Your task to perform on an android device: uninstall "Speedtest by Ookla" Image 0: 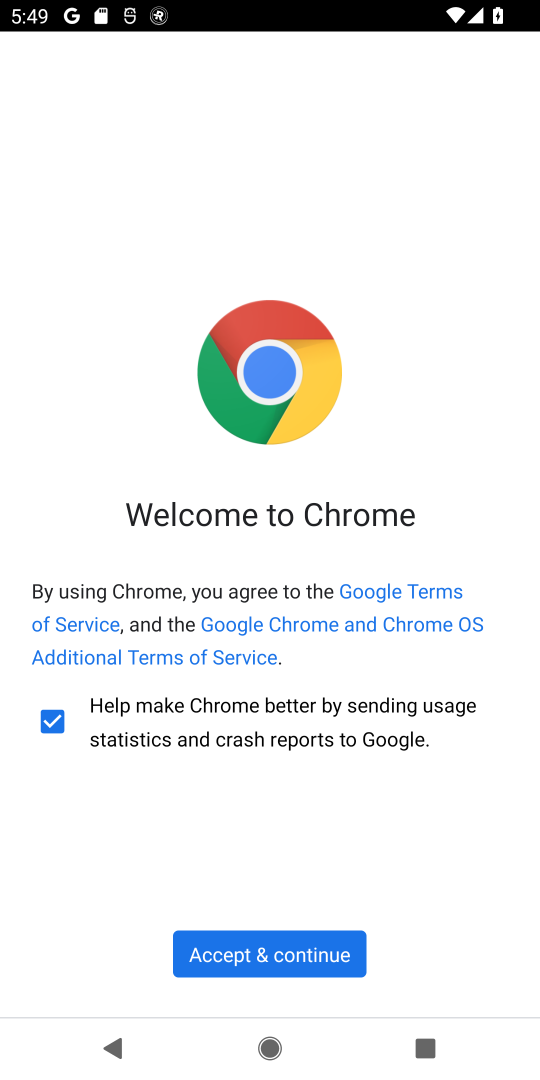
Step 0: click (277, 957)
Your task to perform on an android device: uninstall "Speedtest by Ookla" Image 1: 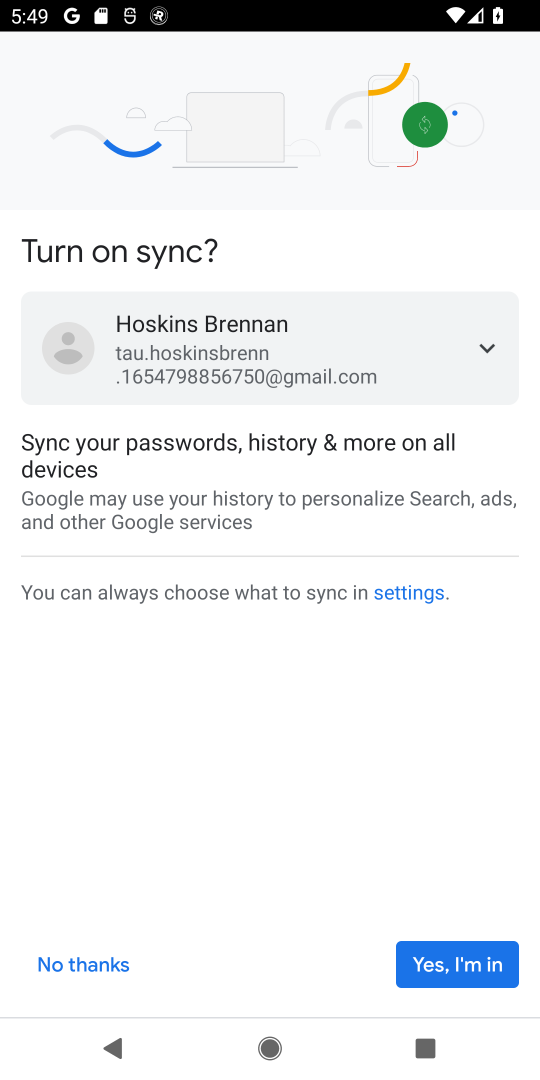
Step 1: press back button
Your task to perform on an android device: uninstall "Speedtest by Ookla" Image 2: 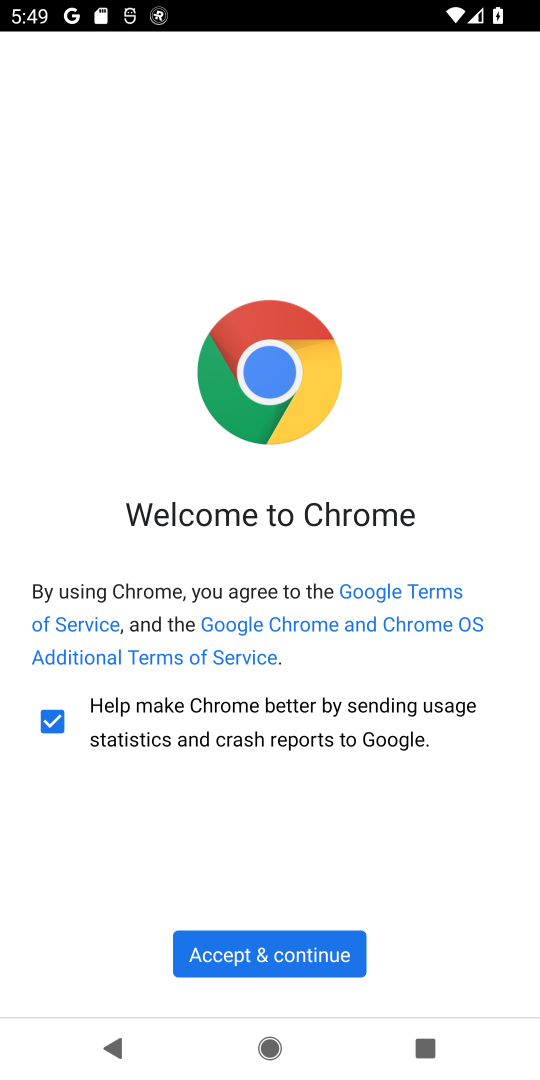
Step 2: press home button
Your task to perform on an android device: uninstall "Speedtest by Ookla" Image 3: 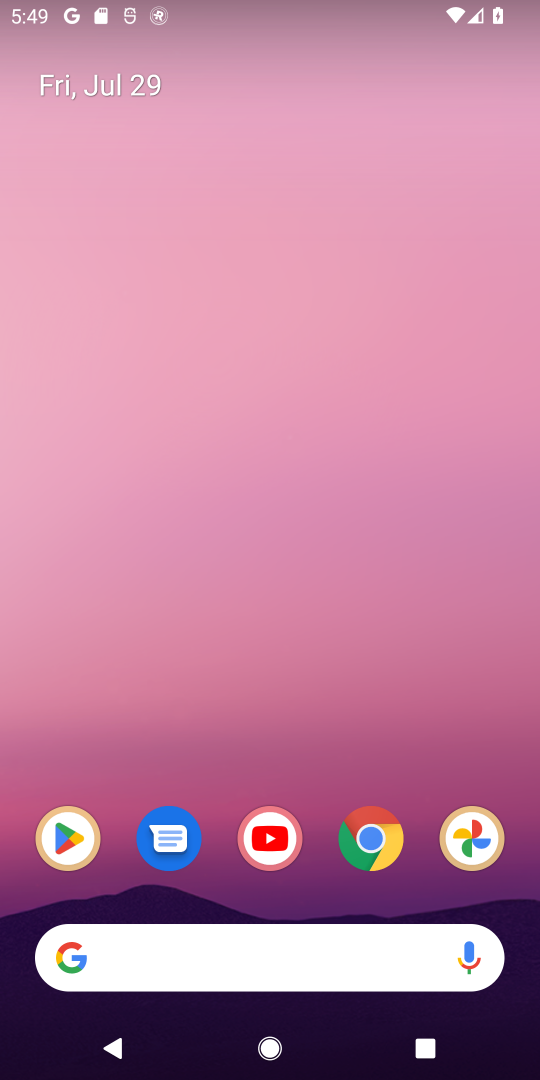
Step 3: click (90, 847)
Your task to perform on an android device: uninstall "Speedtest by Ookla" Image 4: 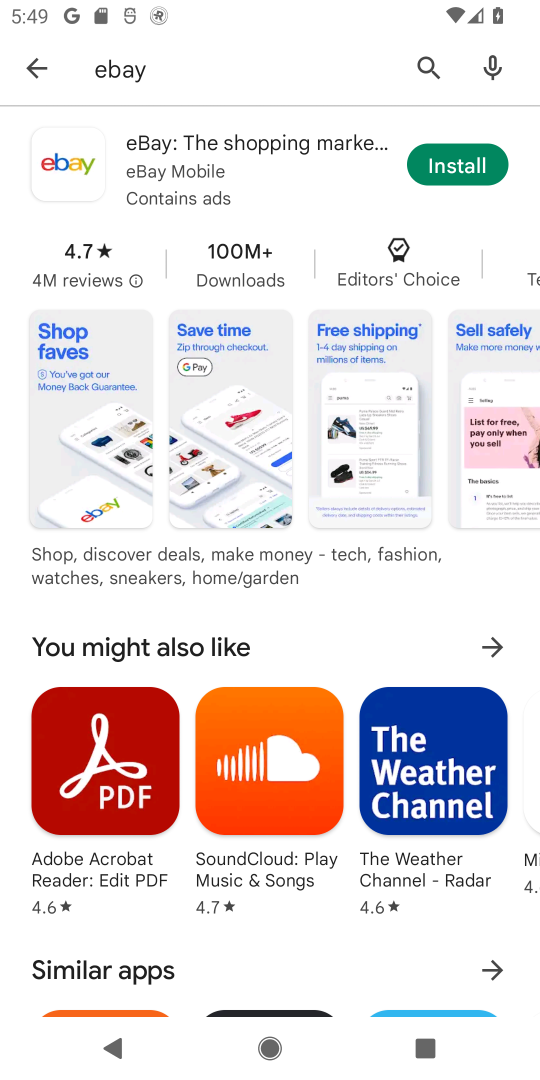
Step 4: click (416, 52)
Your task to perform on an android device: uninstall "Speedtest by Ookla" Image 5: 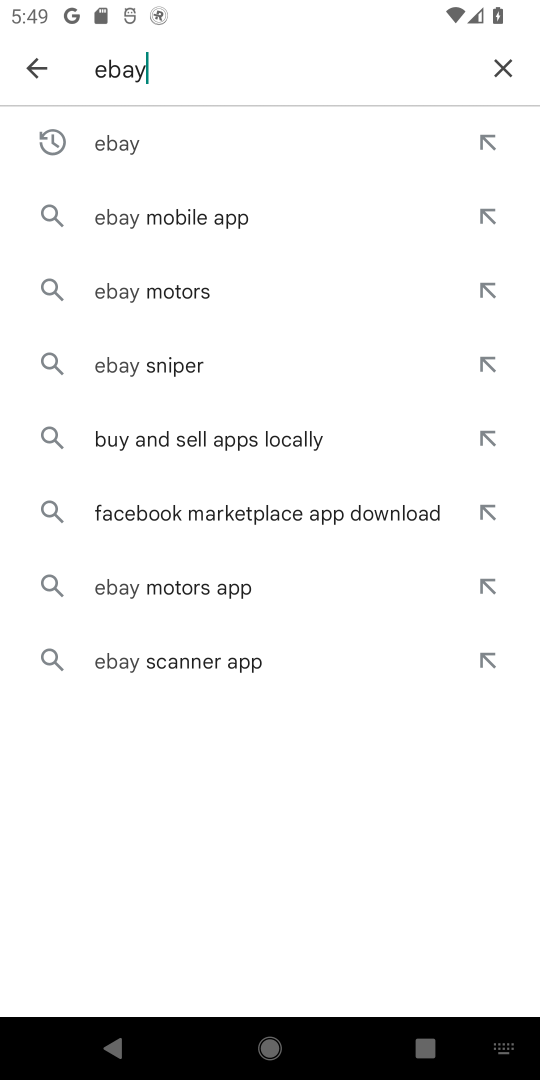
Step 5: click (510, 63)
Your task to perform on an android device: uninstall "Speedtest by Ookla" Image 6: 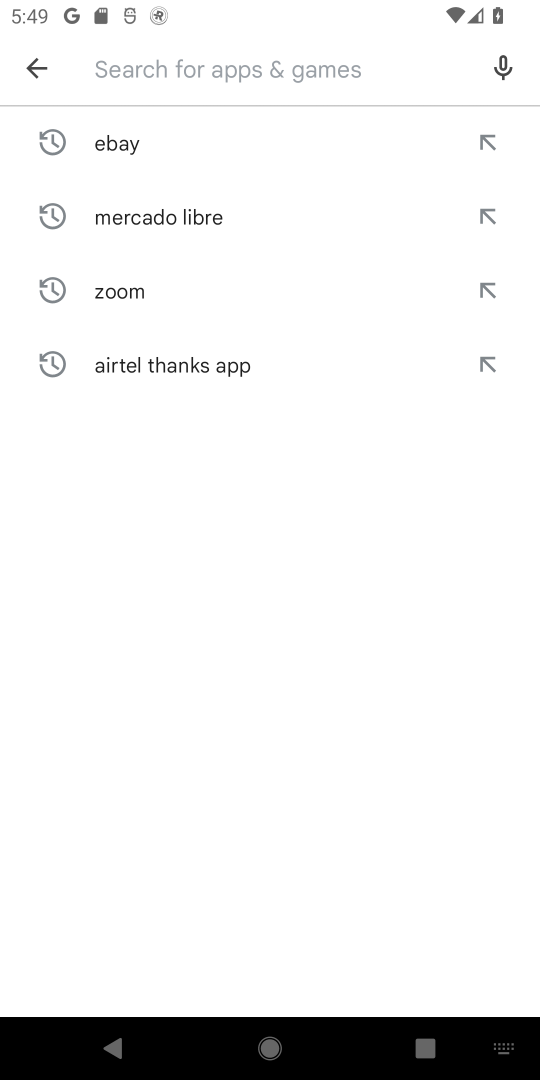
Step 6: type "speed test"
Your task to perform on an android device: uninstall "Speedtest by Ookla" Image 7: 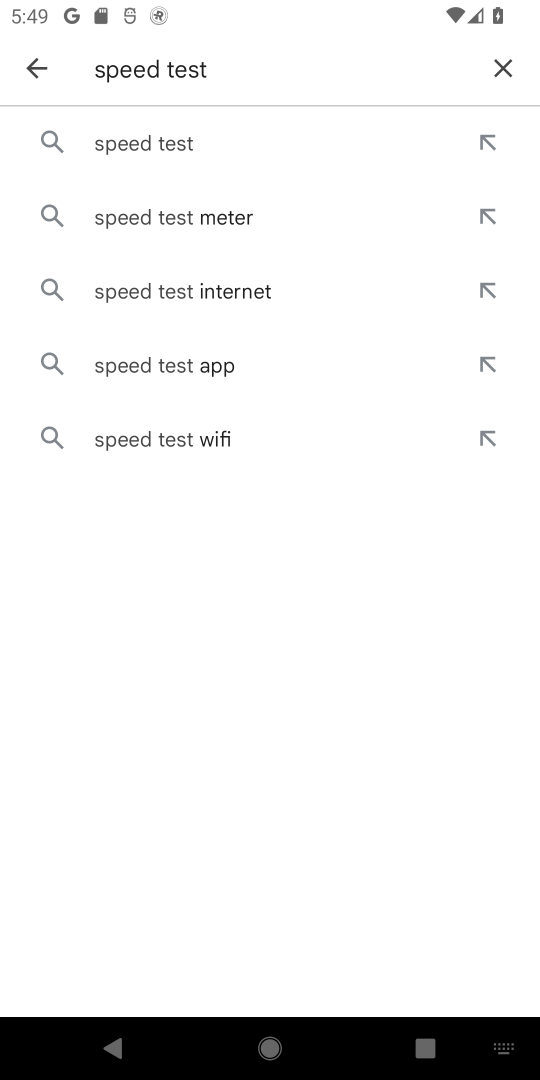
Step 7: click (221, 134)
Your task to perform on an android device: uninstall "Speedtest by Ookla" Image 8: 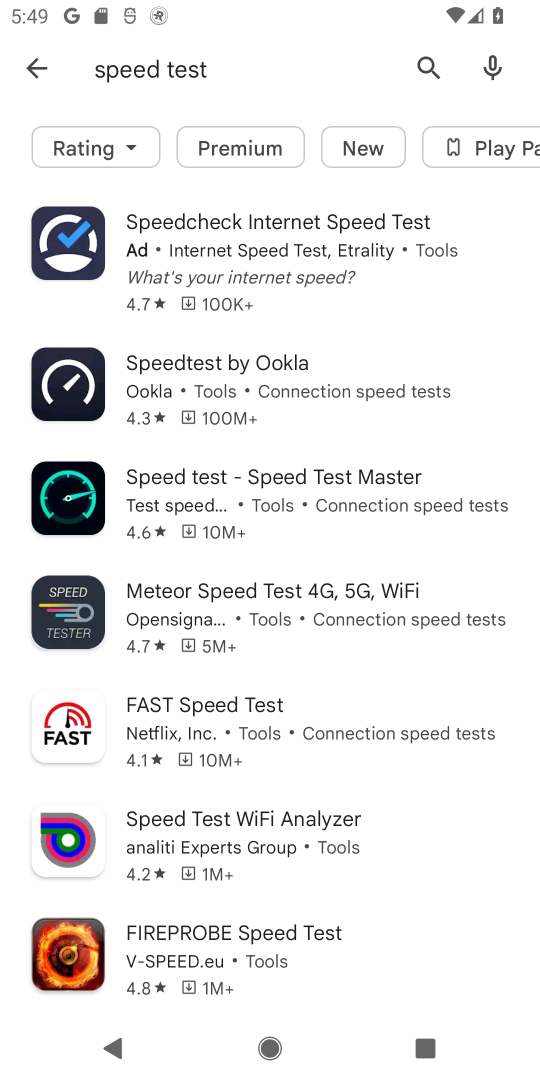
Step 8: click (268, 375)
Your task to perform on an android device: uninstall "Speedtest by Ookla" Image 9: 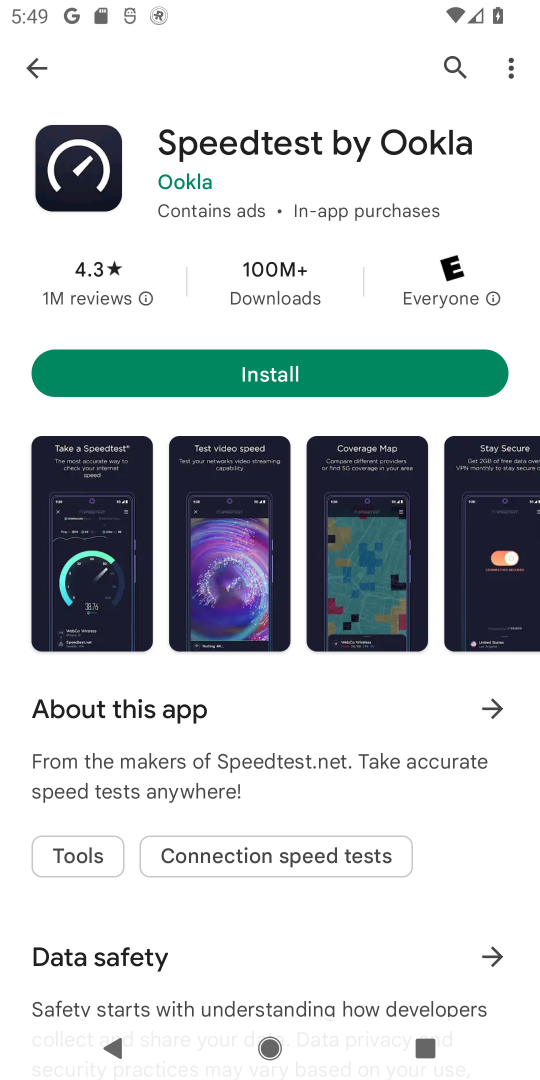
Step 9: task complete